Your task to perform on an android device: Turn on the flashlight Image 0: 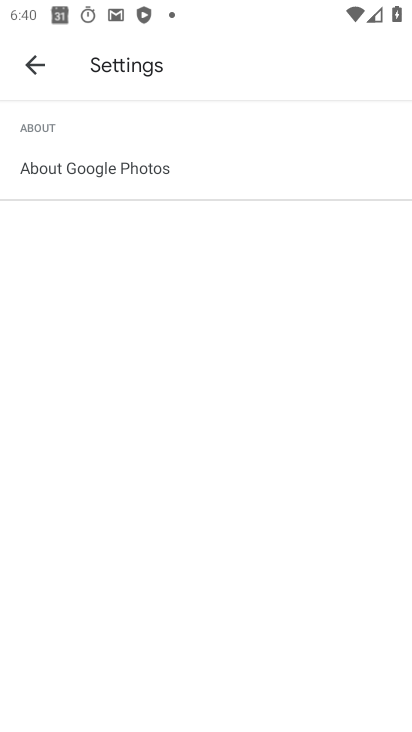
Step 0: press home button
Your task to perform on an android device: Turn on the flashlight Image 1: 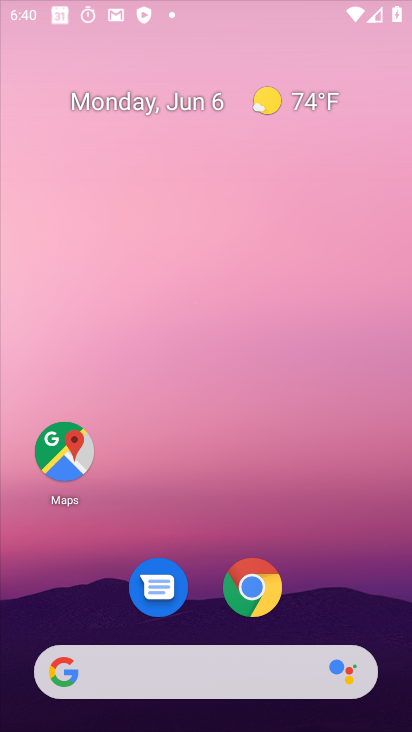
Step 1: drag from (391, 651) to (264, 16)
Your task to perform on an android device: Turn on the flashlight Image 2: 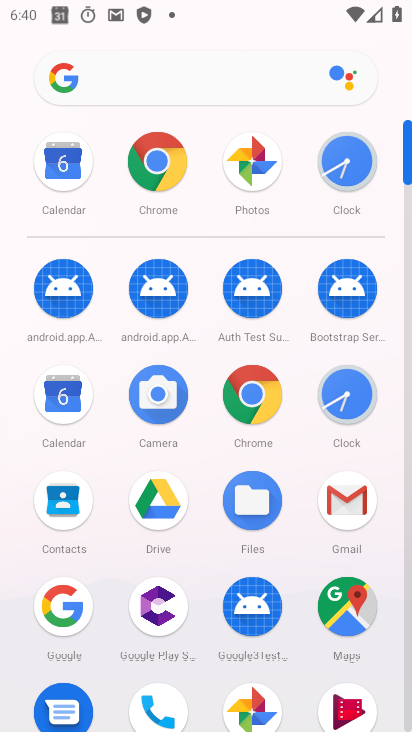
Step 2: drag from (191, 686) to (215, 106)
Your task to perform on an android device: Turn on the flashlight Image 3: 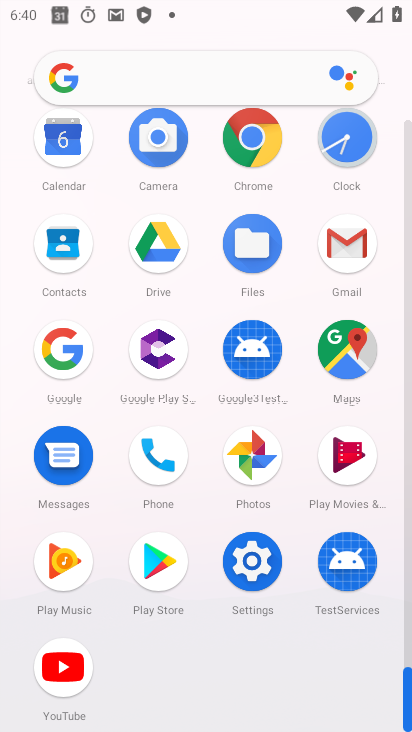
Step 3: click (245, 582)
Your task to perform on an android device: Turn on the flashlight Image 4: 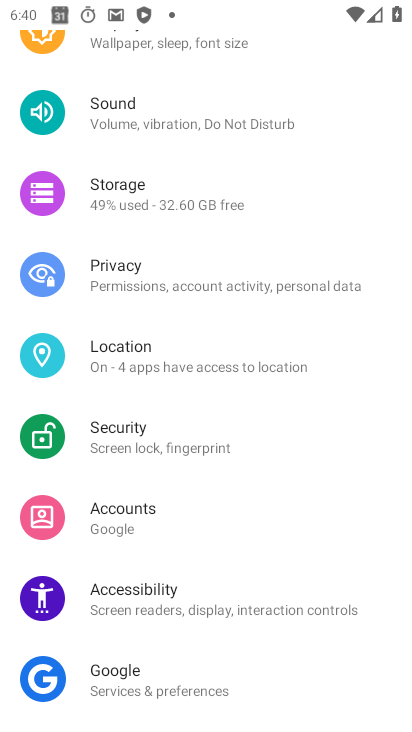
Step 4: task complete